Your task to perform on an android device: Open the calendar app, open the side menu, and click the "Day" option Image 0: 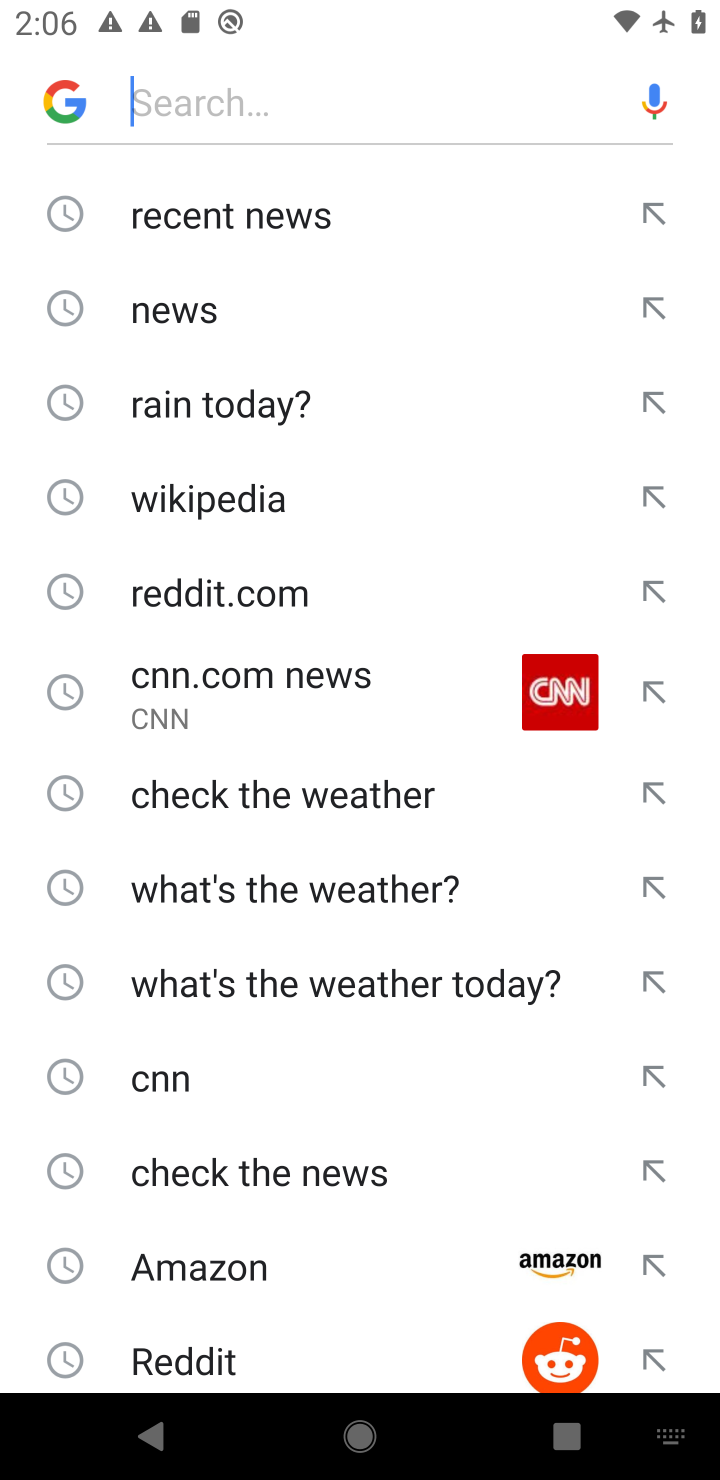
Step 0: press home button
Your task to perform on an android device: Open the calendar app, open the side menu, and click the "Day" option Image 1: 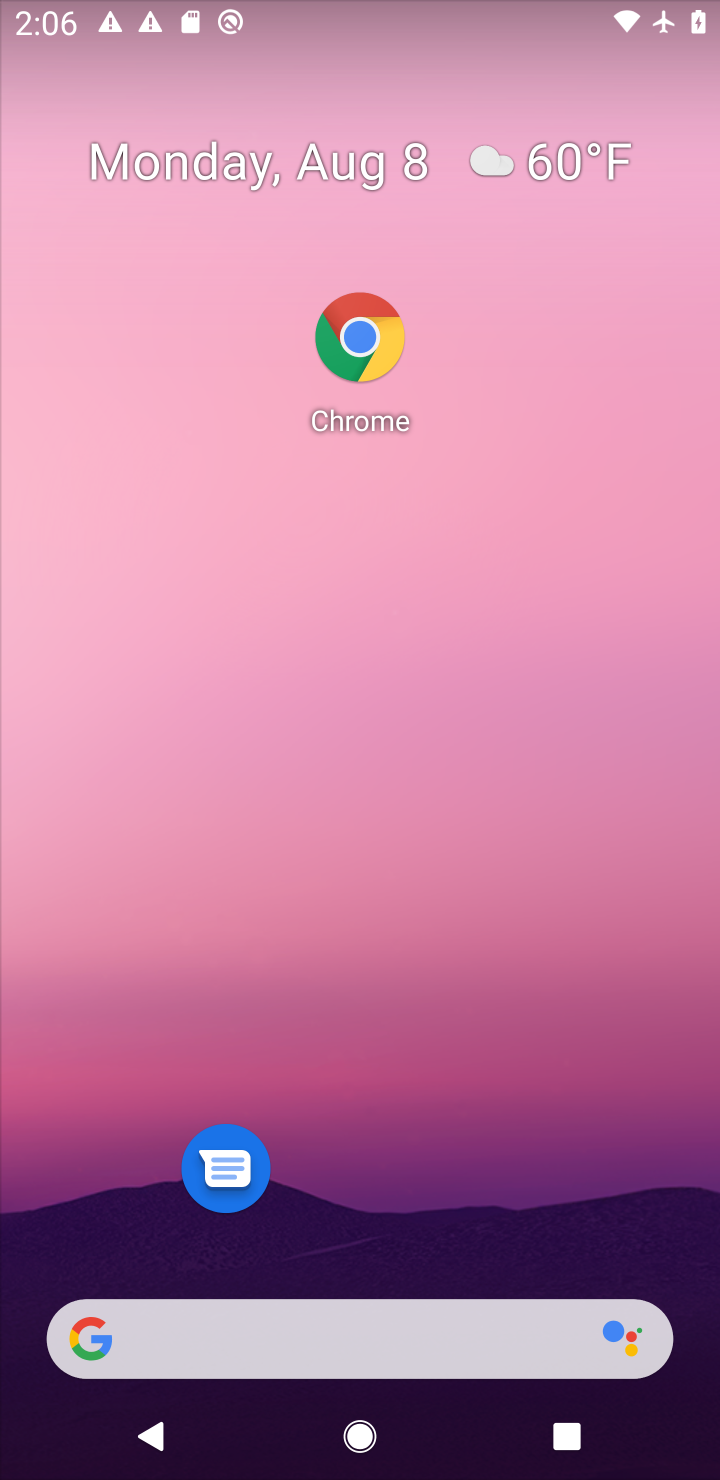
Step 1: drag from (379, 1271) to (445, 237)
Your task to perform on an android device: Open the calendar app, open the side menu, and click the "Day" option Image 2: 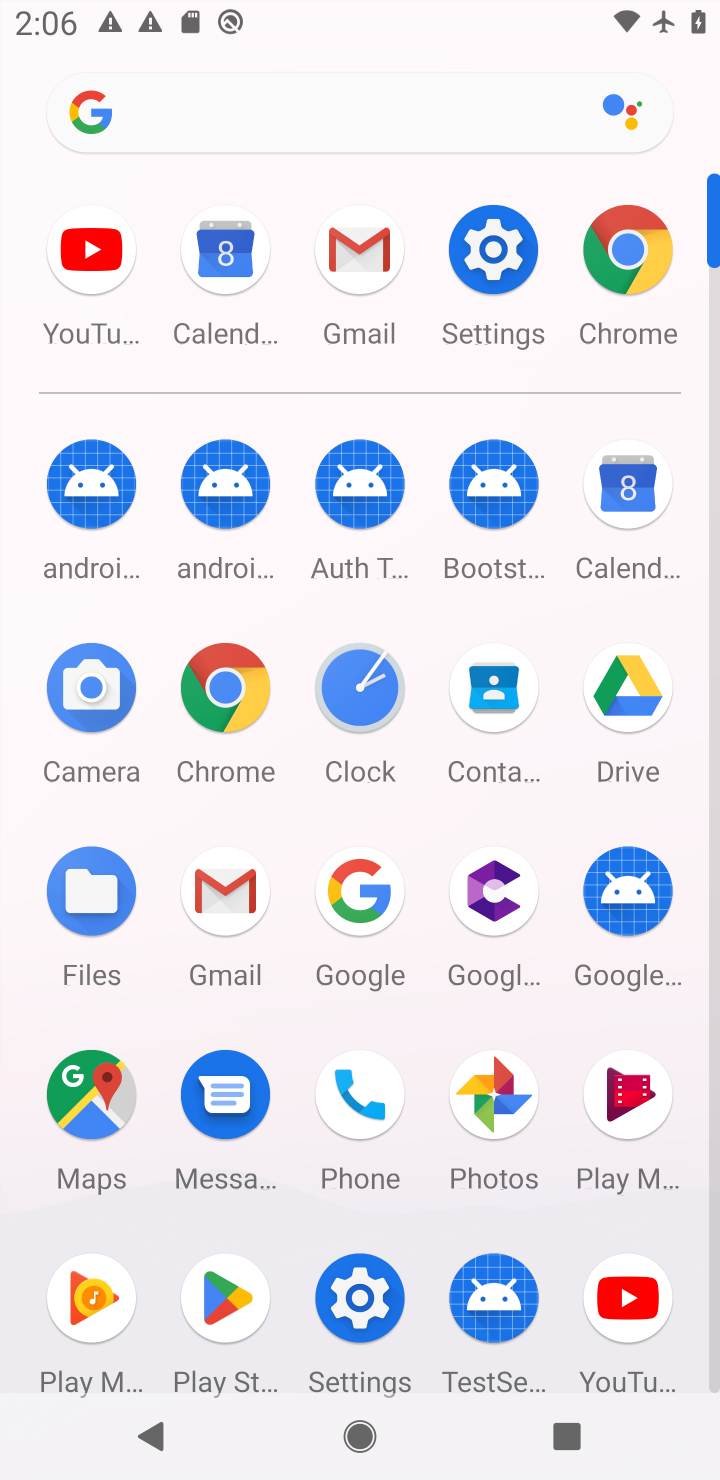
Step 2: click (251, 291)
Your task to perform on an android device: Open the calendar app, open the side menu, and click the "Day" option Image 3: 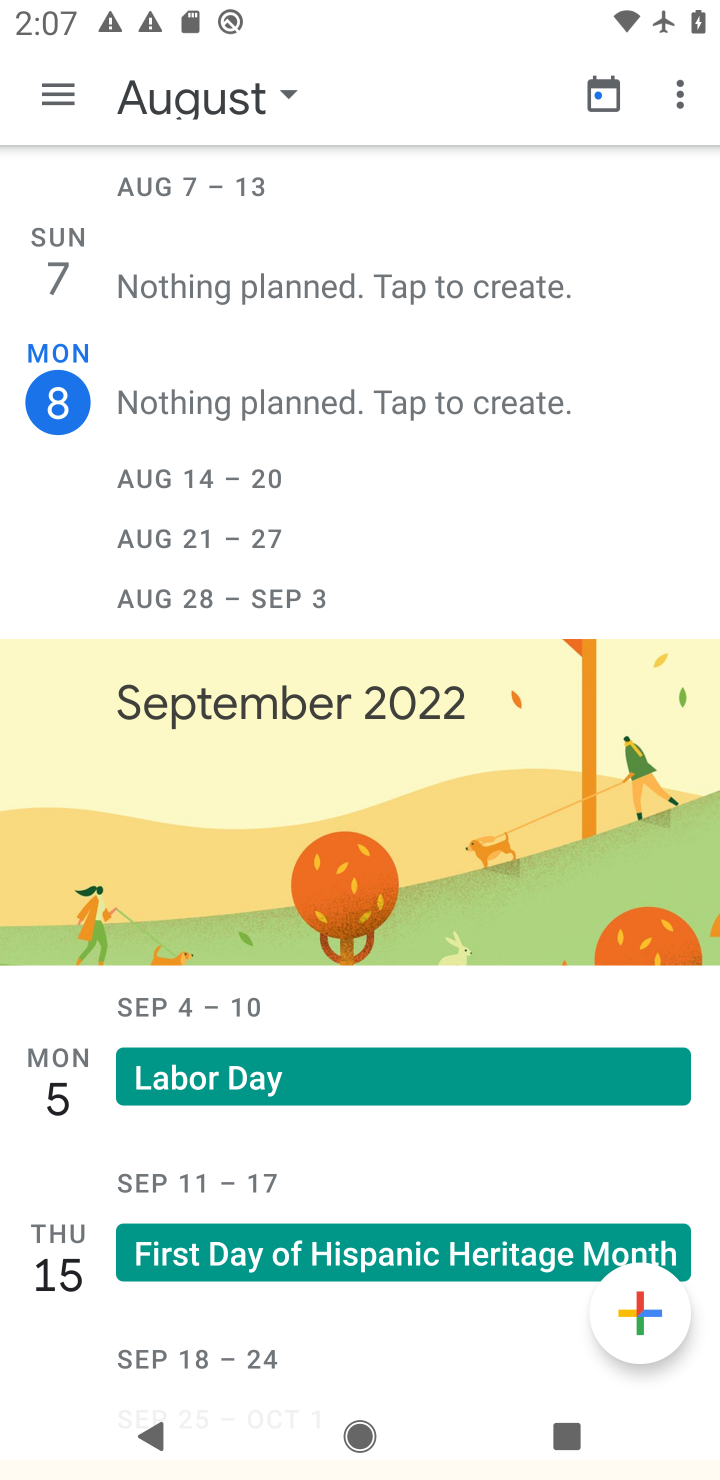
Step 3: task complete